Your task to perform on an android device: clear history in the chrome app Image 0: 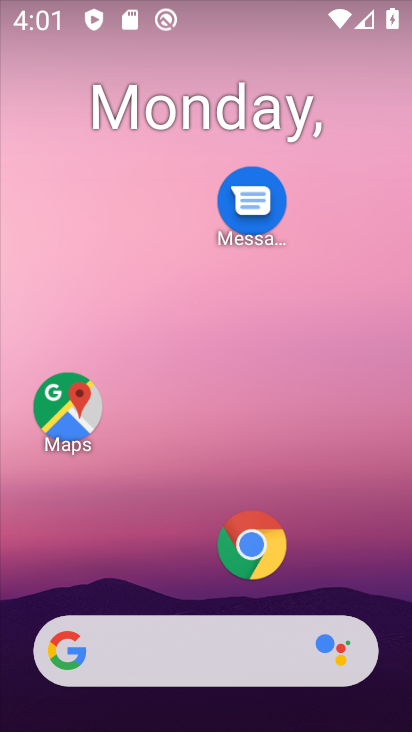
Step 0: drag from (193, 563) to (258, 17)
Your task to perform on an android device: clear history in the chrome app Image 1: 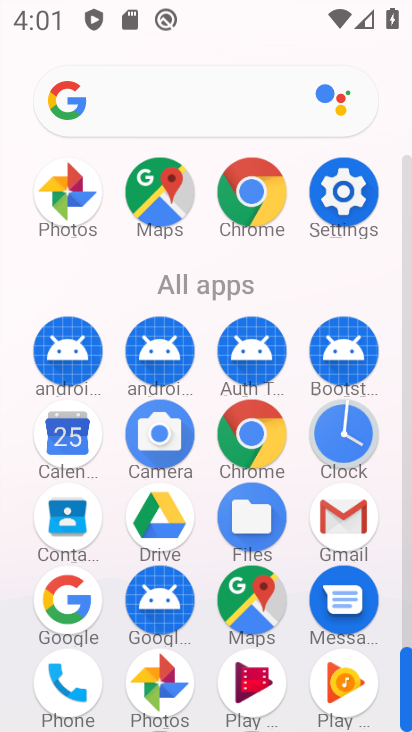
Step 1: click (243, 424)
Your task to perform on an android device: clear history in the chrome app Image 2: 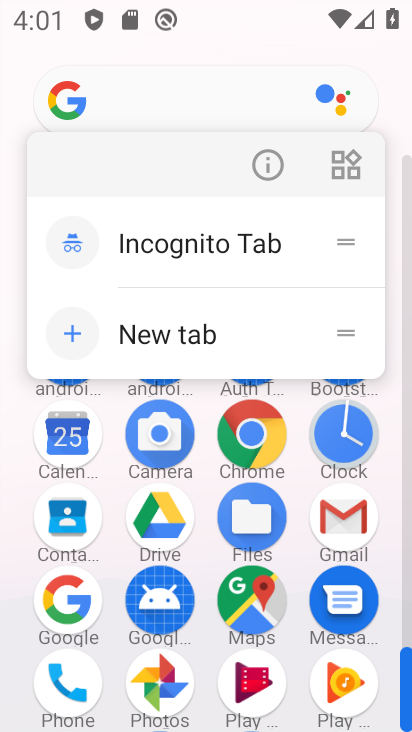
Step 2: click (248, 429)
Your task to perform on an android device: clear history in the chrome app Image 3: 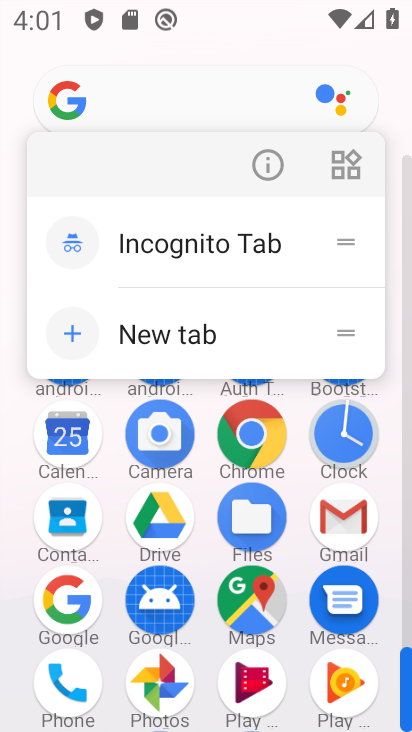
Step 3: click (247, 432)
Your task to perform on an android device: clear history in the chrome app Image 4: 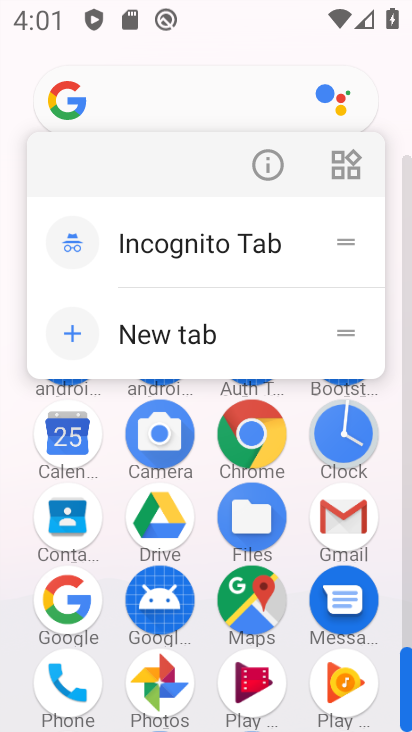
Step 4: click (246, 428)
Your task to perform on an android device: clear history in the chrome app Image 5: 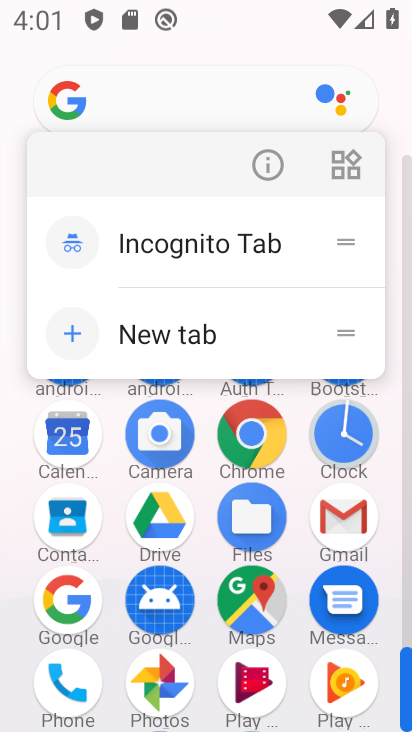
Step 5: click (211, 543)
Your task to perform on an android device: clear history in the chrome app Image 6: 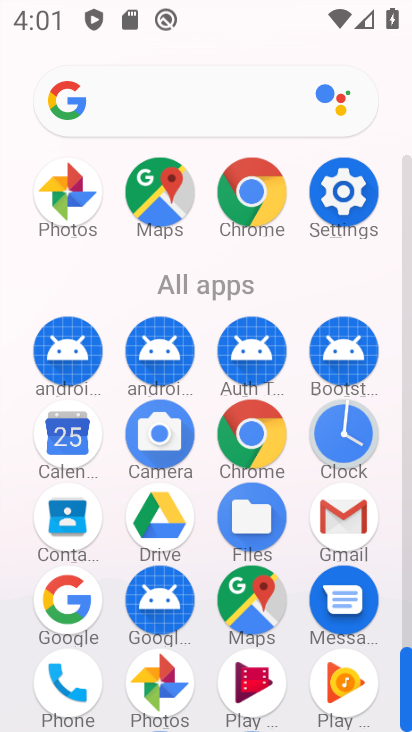
Step 6: click (253, 422)
Your task to perform on an android device: clear history in the chrome app Image 7: 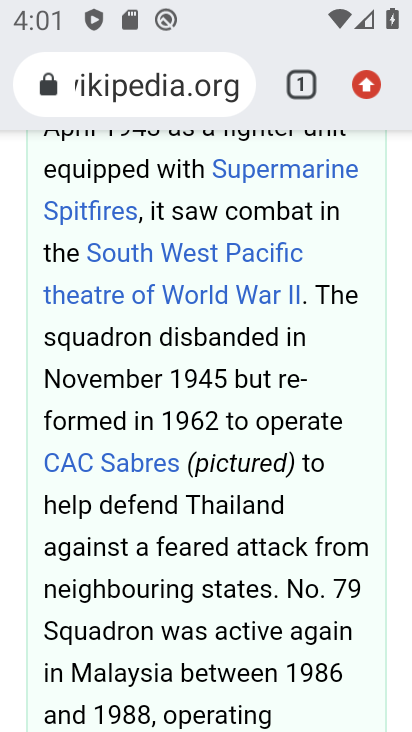
Step 7: click (360, 86)
Your task to perform on an android device: clear history in the chrome app Image 8: 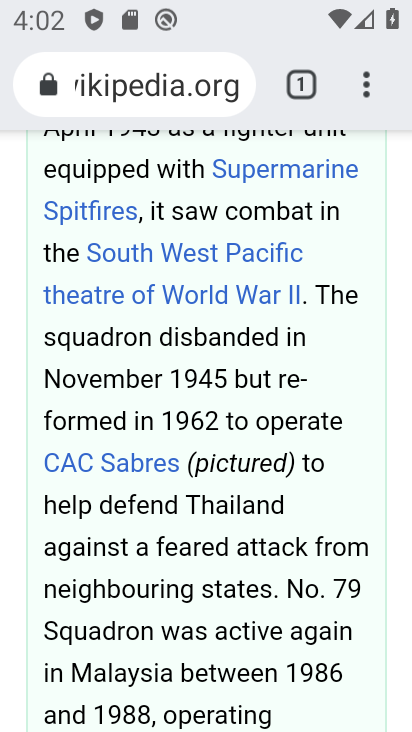
Step 8: click (364, 75)
Your task to perform on an android device: clear history in the chrome app Image 9: 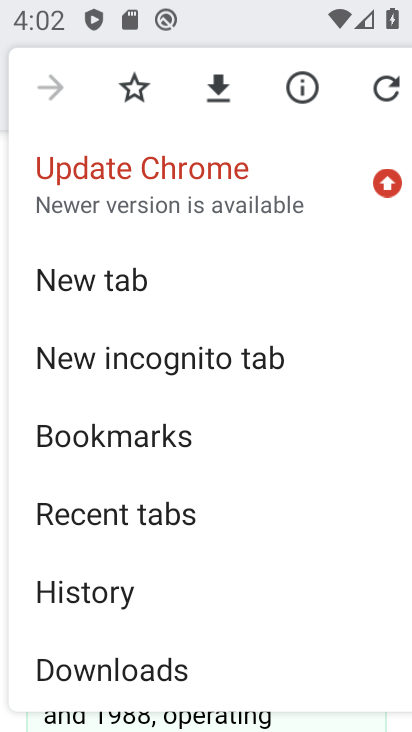
Step 9: click (364, 78)
Your task to perform on an android device: clear history in the chrome app Image 10: 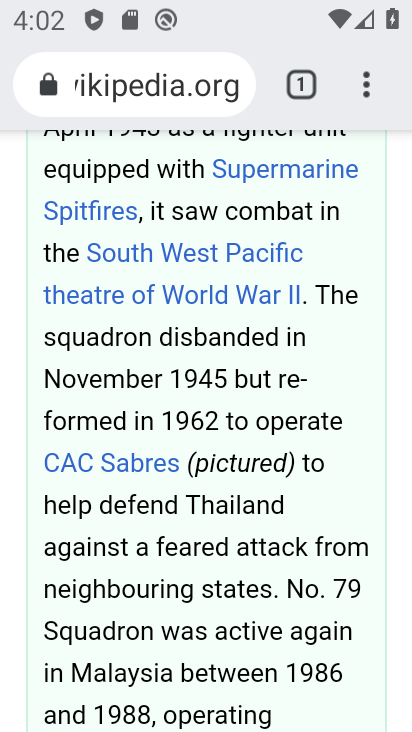
Step 10: click (365, 78)
Your task to perform on an android device: clear history in the chrome app Image 11: 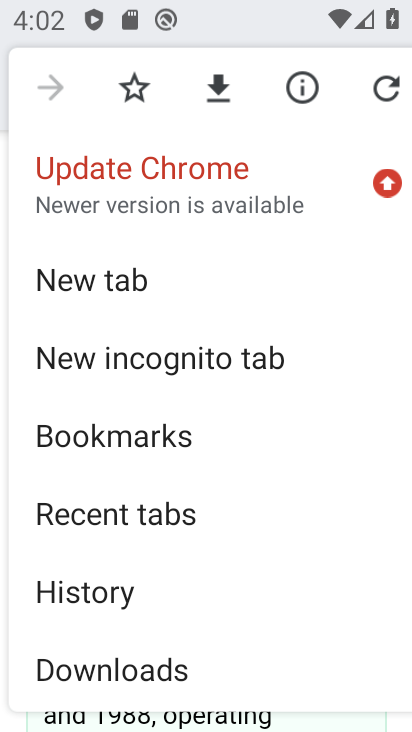
Step 11: click (152, 587)
Your task to perform on an android device: clear history in the chrome app Image 12: 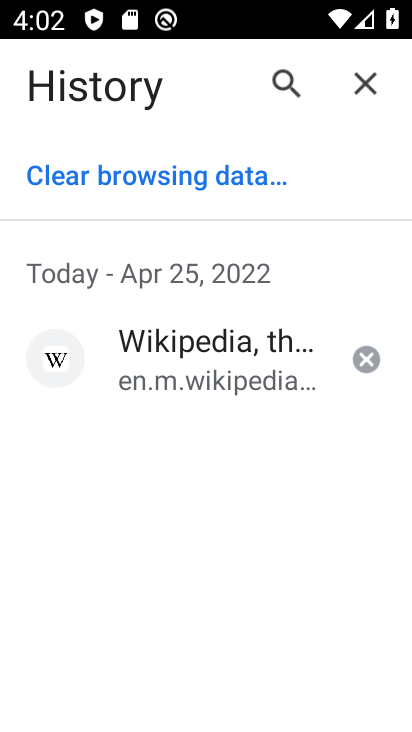
Step 12: click (154, 168)
Your task to perform on an android device: clear history in the chrome app Image 13: 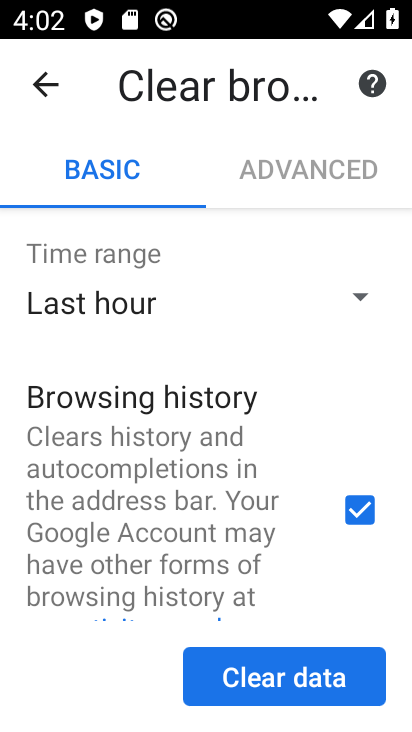
Step 13: task complete